Your task to perform on an android device: Open calendar and show me the fourth week of next month Image 0: 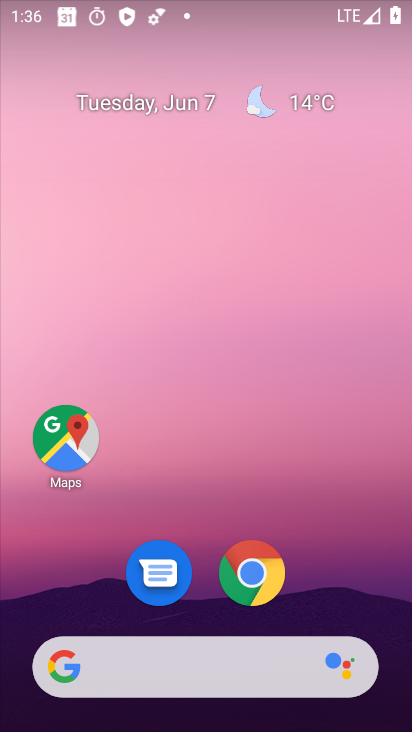
Step 0: press home button
Your task to perform on an android device: Open calendar and show me the fourth week of next month Image 1: 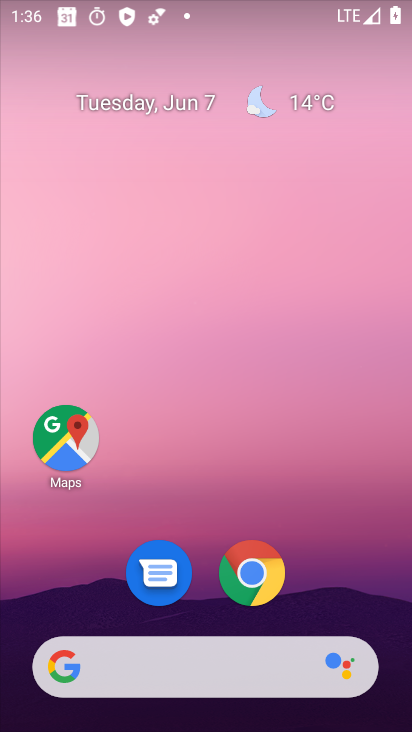
Step 1: drag from (227, 524) to (257, 185)
Your task to perform on an android device: Open calendar and show me the fourth week of next month Image 2: 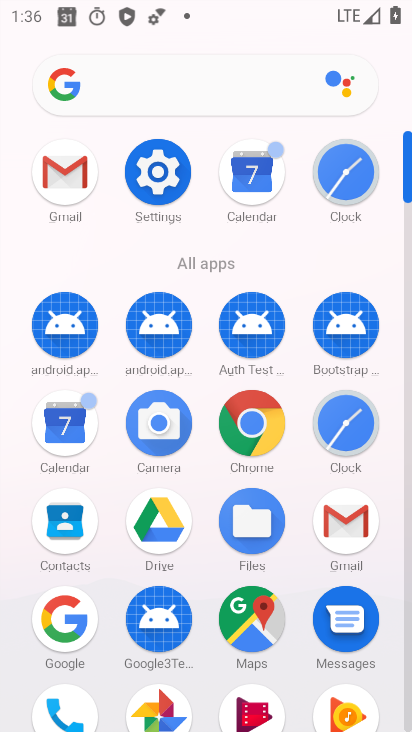
Step 2: click (249, 164)
Your task to perform on an android device: Open calendar and show me the fourth week of next month Image 3: 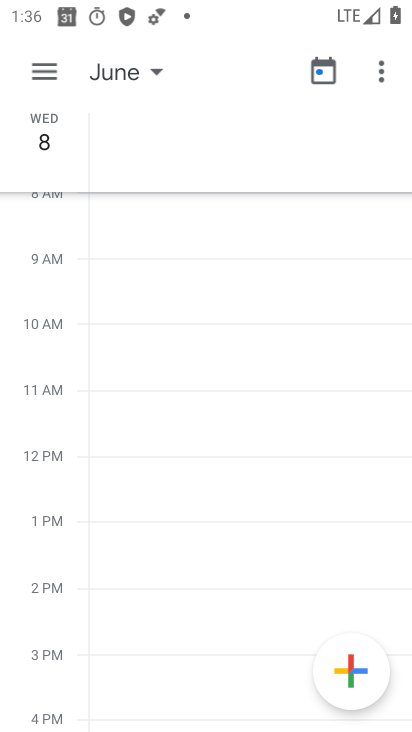
Step 3: click (153, 71)
Your task to perform on an android device: Open calendar and show me the fourth week of next month Image 4: 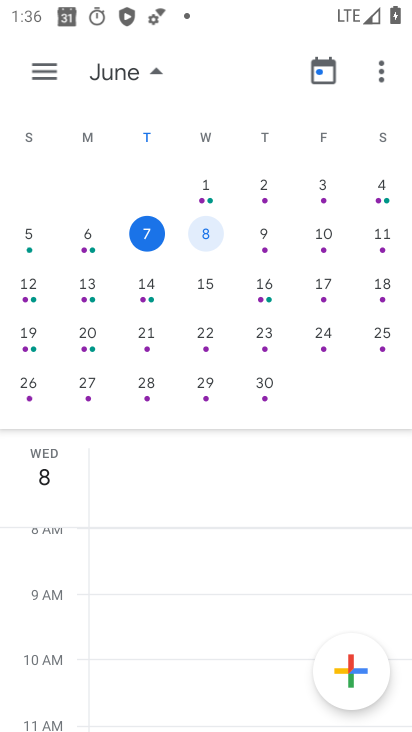
Step 4: click (31, 384)
Your task to perform on an android device: Open calendar and show me the fourth week of next month Image 5: 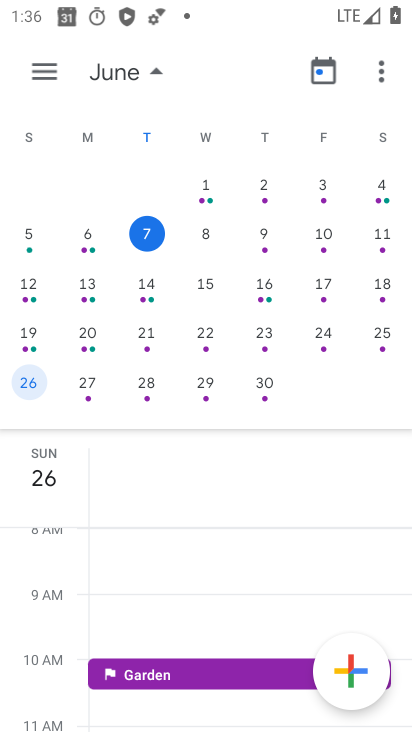
Step 5: click (155, 62)
Your task to perform on an android device: Open calendar and show me the fourth week of next month Image 6: 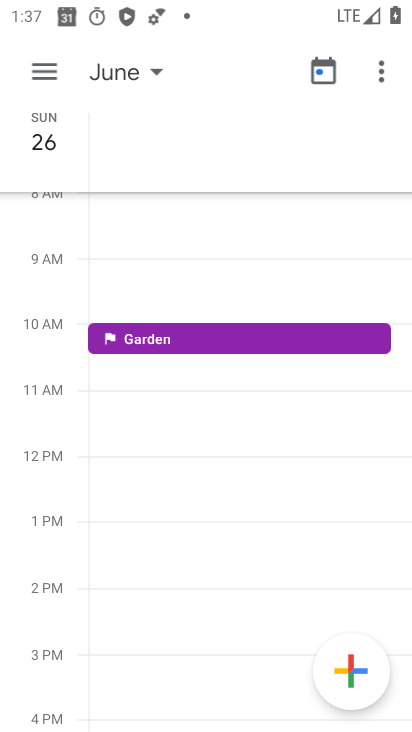
Step 6: click (43, 158)
Your task to perform on an android device: Open calendar and show me the fourth week of next month Image 7: 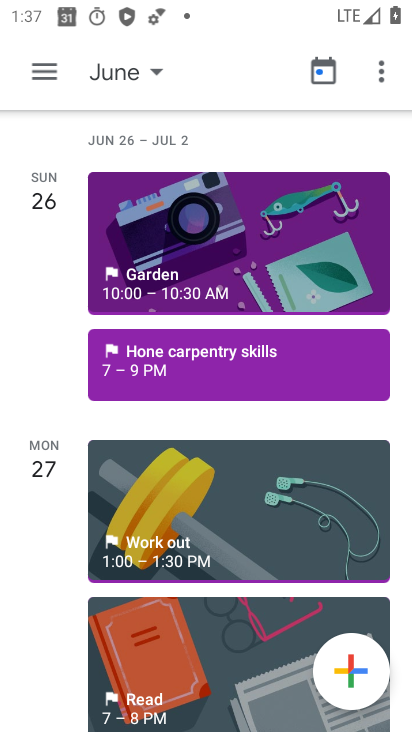
Step 7: task complete